Your task to perform on an android device: toggle notifications settings in the gmail app Image 0: 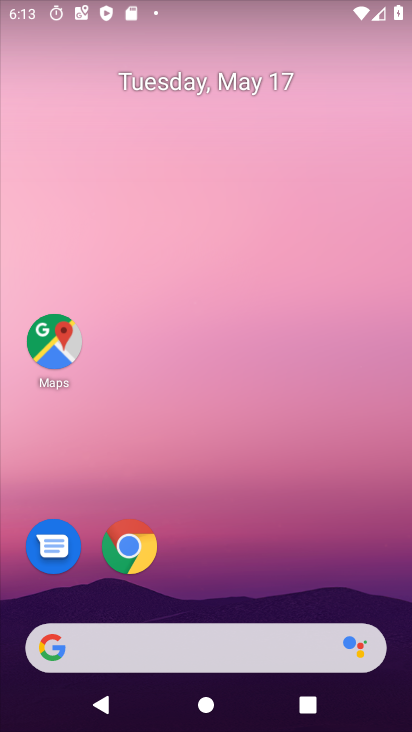
Step 0: drag from (249, 488) to (233, 192)
Your task to perform on an android device: toggle notifications settings in the gmail app Image 1: 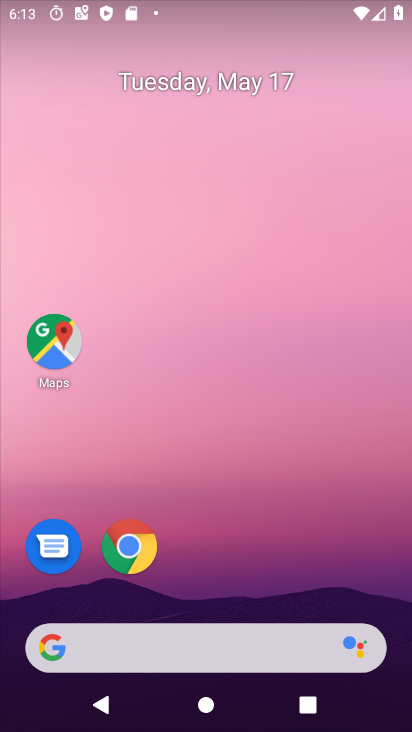
Step 1: drag from (248, 579) to (234, 167)
Your task to perform on an android device: toggle notifications settings in the gmail app Image 2: 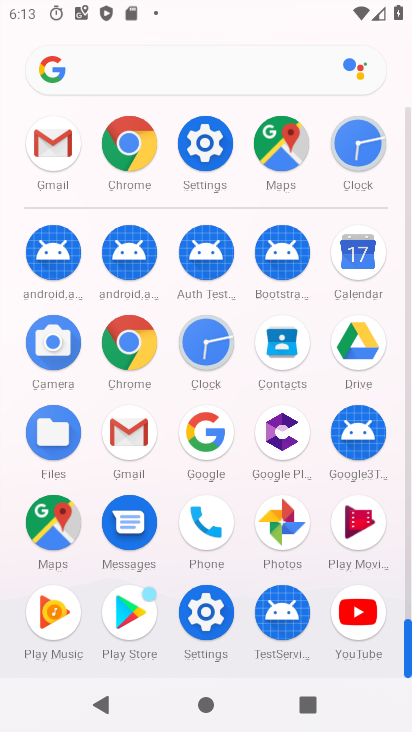
Step 2: click (46, 159)
Your task to perform on an android device: toggle notifications settings in the gmail app Image 3: 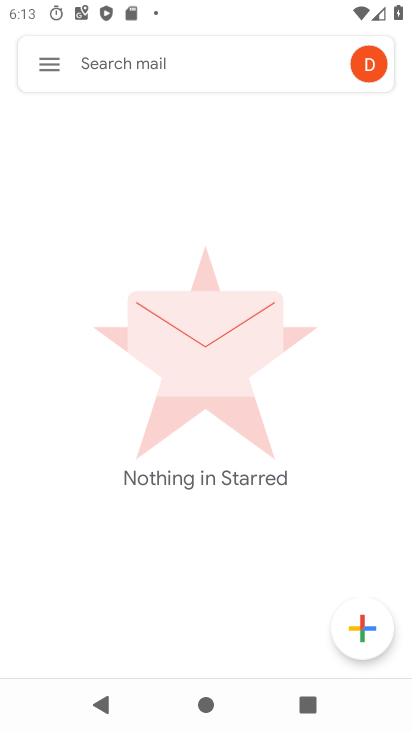
Step 3: click (48, 61)
Your task to perform on an android device: toggle notifications settings in the gmail app Image 4: 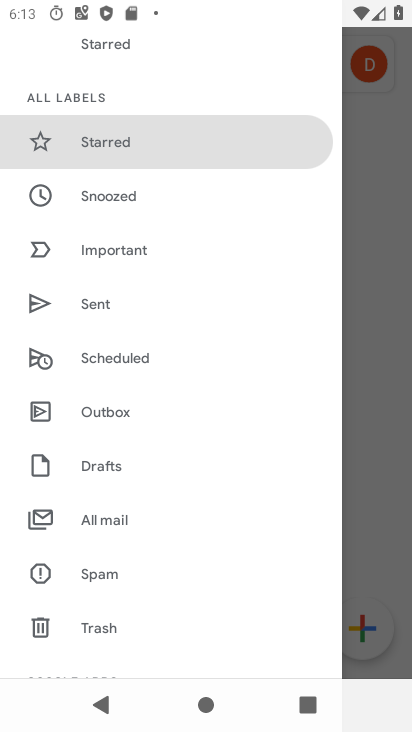
Step 4: drag from (132, 592) to (132, 222)
Your task to perform on an android device: toggle notifications settings in the gmail app Image 5: 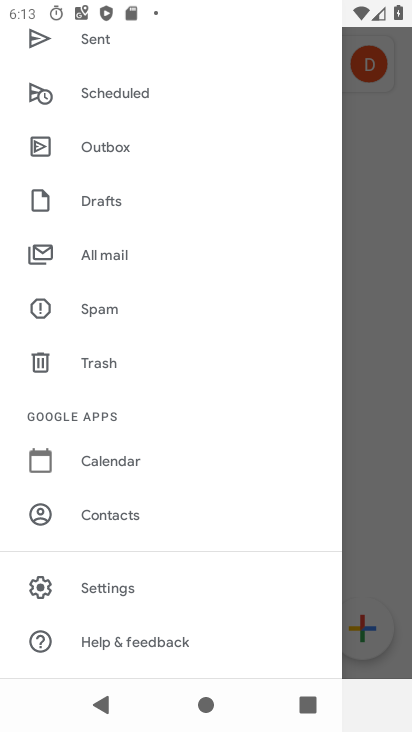
Step 5: click (123, 591)
Your task to perform on an android device: toggle notifications settings in the gmail app Image 6: 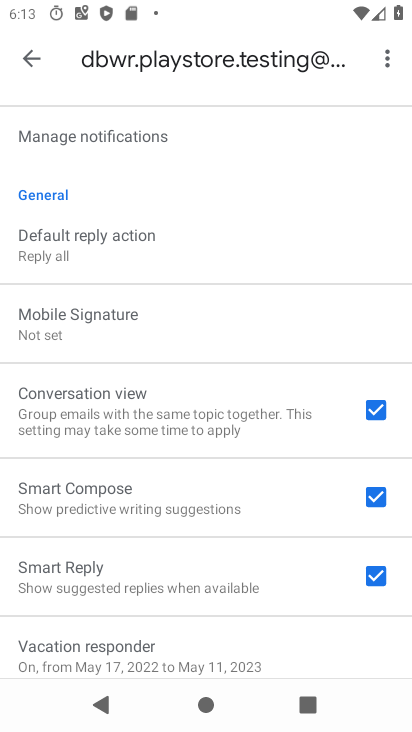
Step 6: drag from (192, 274) to (170, 556)
Your task to perform on an android device: toggle notifications settings in the gmail app Image 7: 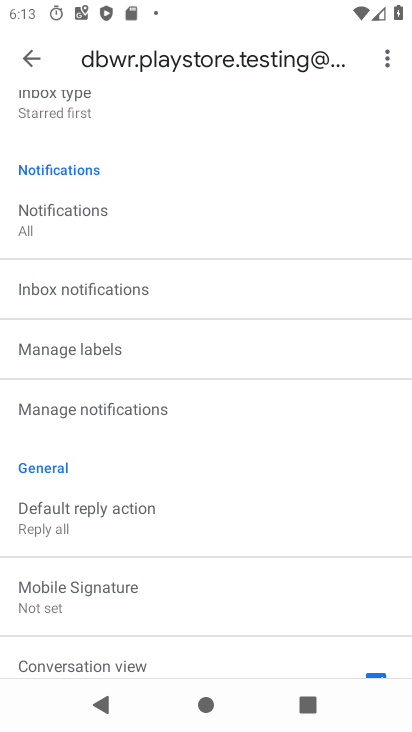
Step 7: drag from (154, 292) to (146, 592)
Your task to perform on an android device: toggle notifications settings in the gmail app Image 8: 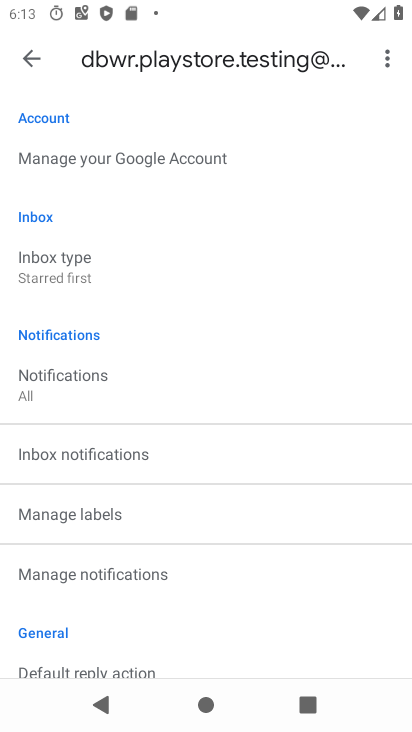
Step 8: click (39, 389)
Your task to perform on an android device: toggle notifications settings in the gmail app Image 9: 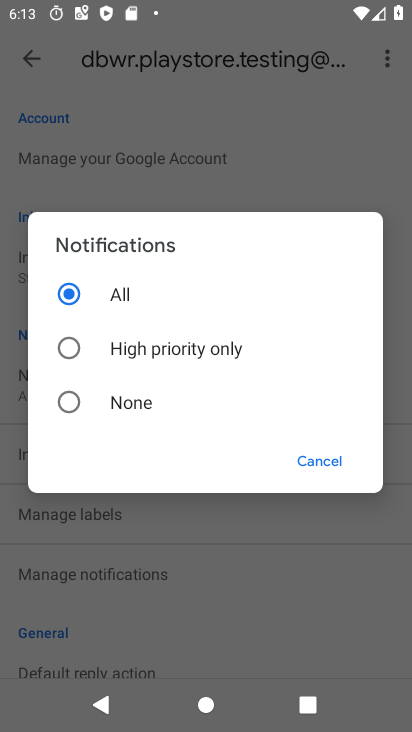
Step 9: click (74, 413)
Your task to perform on an android device: toggle notifications settings in the gmail app Image 10: 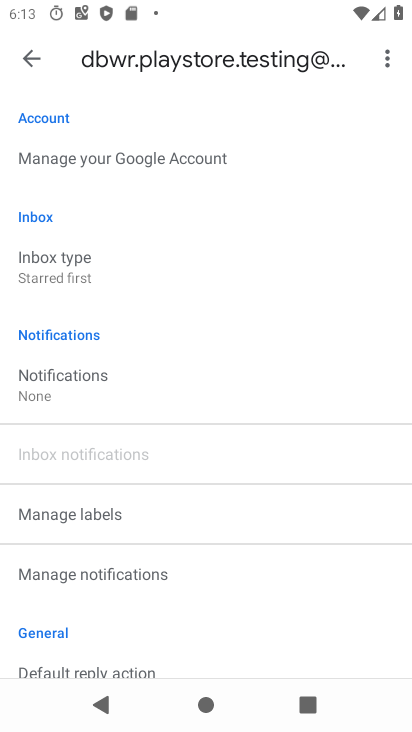
Step 10: task complete